Your task to perform on an android device: turn on wifi Image 0: 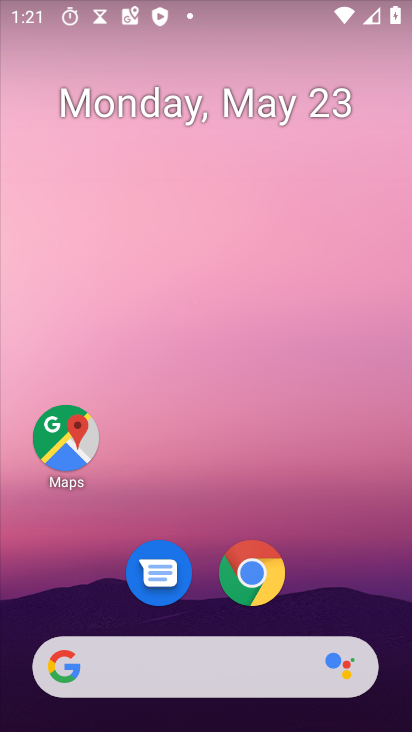
Step 0: press home button
Your task to perform on an android device: turn on wifi Image 1: 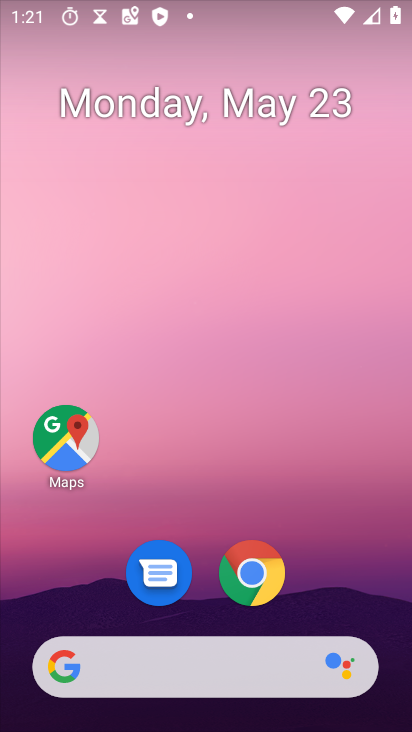
Step 1: drag from (160, 667) to (284, 178)
Your task to perform on an android device: turn on wifi Image 2: 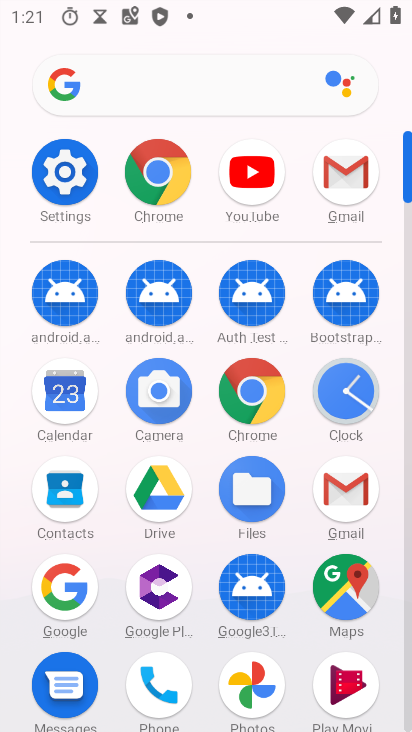
Step 2: click (78, 174)
Your task to perform on an android device: turn on wifi Image 3: 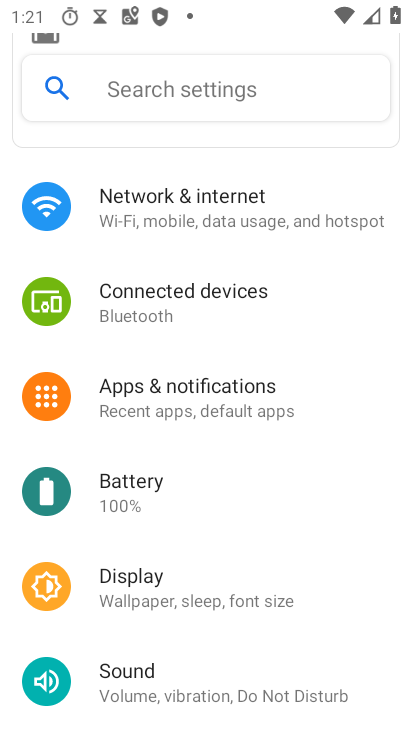
Step 3: click (232, 209)
Your task to perform on an android device: turn on wifi Image 4: 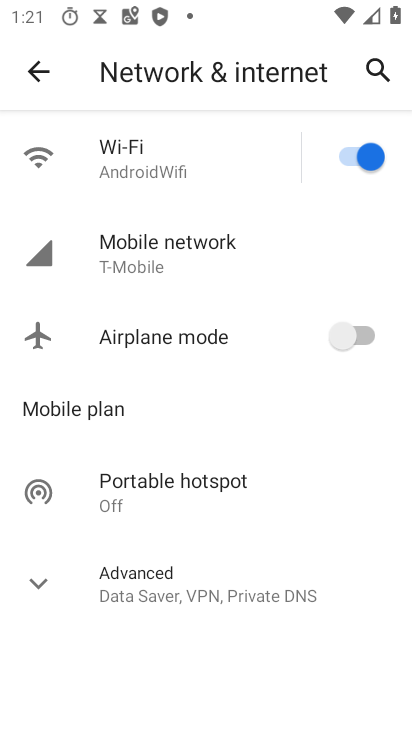
Step 4: task complete